Your task to perform on an android device: change your default location settings in chrome Image 0: 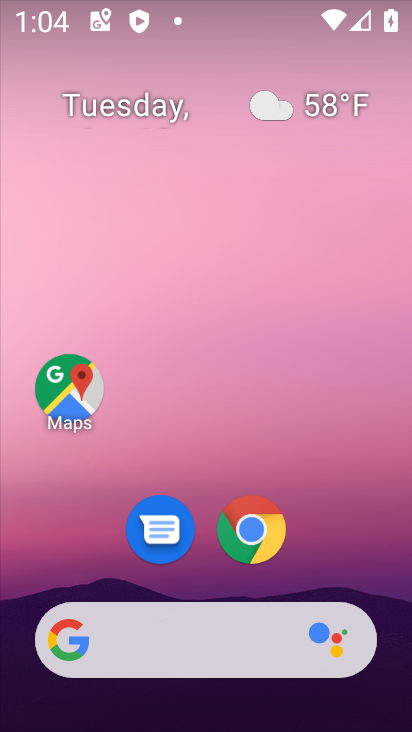
Step 0: drag from (264, 332) to (256, 15)
Your task to perform on an android device: change your default location settings in chrome Image 1: 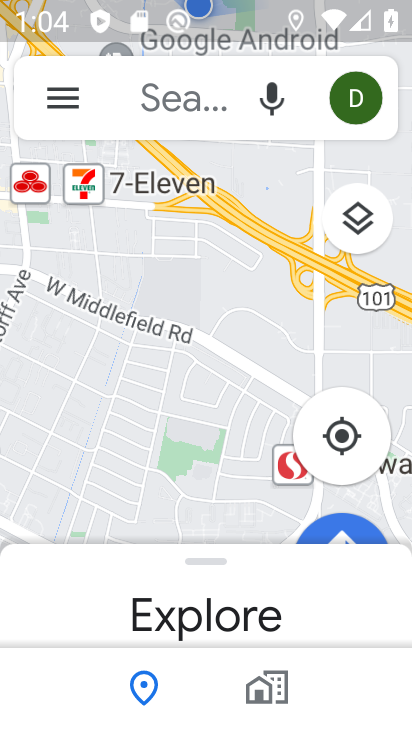
Step 1: press home button
Your task to perform on an android device: change your default location settings in chrome Image 2: 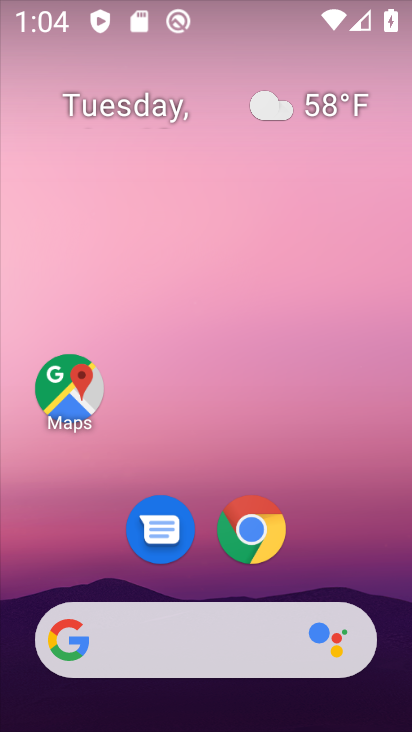
Step 2: drag from (269, 590) to (269, 41)
Your task to perform on an android device: change your default location settings in chrome Image 3: 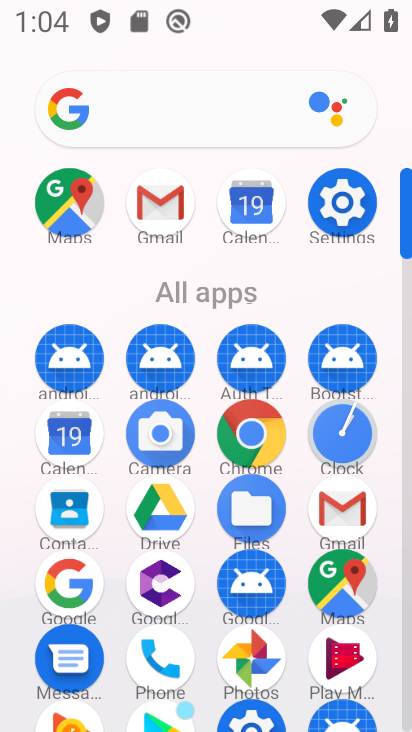
Step 3: click (244, 453)
Your task to perform on an android device: change your default location settings in chrome Image 4: 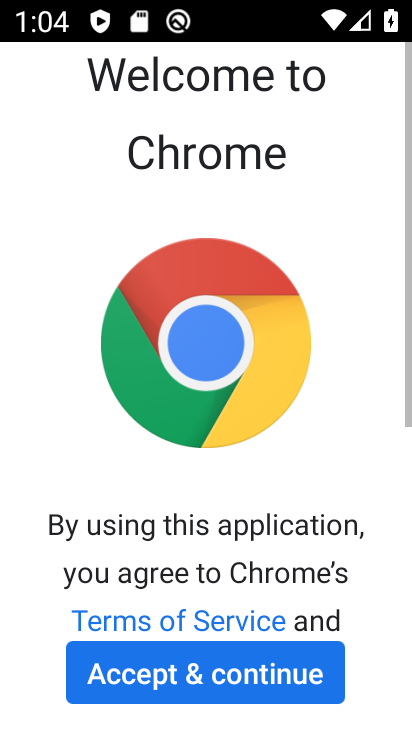
Step 4: click (268, 441)
Your task to perform on an android device: change your default location settings in chrome Image 5: 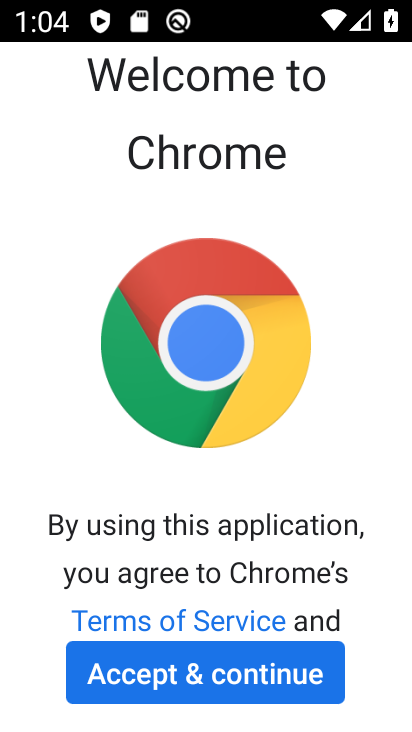
Step 5: click (205, 678)
Your task to perform on an android device: change your default location settings in chrome Image 6: 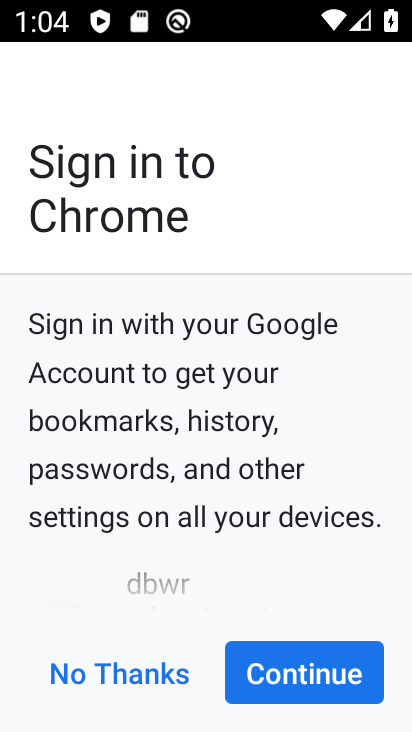
Step 6: click (246, 690)
Your task to perform on an android device: change your default location settings in chrome Image 7: 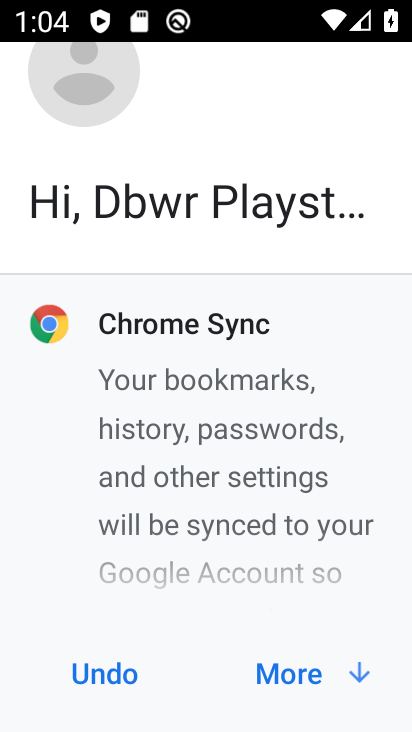
Step 7: click (264, 688)
Your task to perform on an android device: change your default location settings in chrome Image 8: 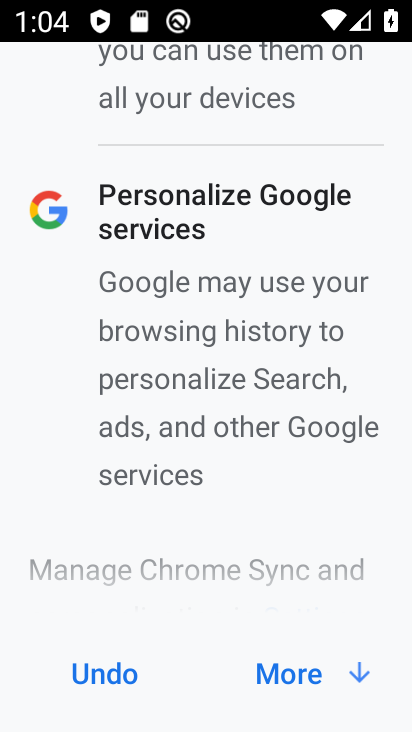
Step 8: click (284, 685)
Your task to perform on an android device: change your default location settings in chrome Image 9: 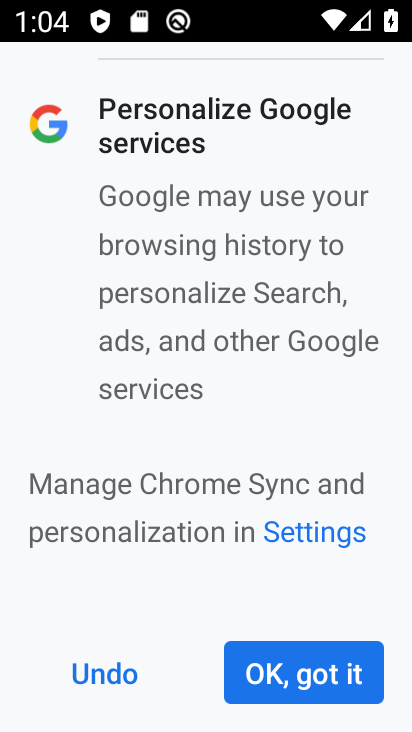
Step 9: click (284, 685)
Your task to perform on an android device: change your default location settings in chrome Image 10: 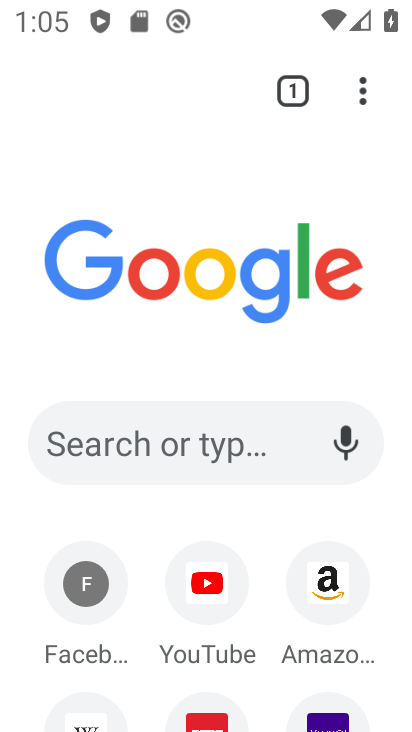
Step 10: click (367, 87)
Your task to perform on an android device: change your default location settings in chrome Image 11: 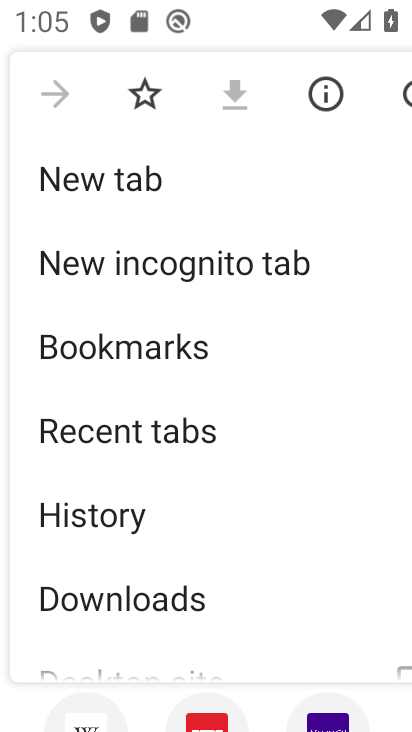
Step 11: drag from (173, 573) to (193, 178)
Your task to perform on an android device: change your default location settings in chrome Image 12: 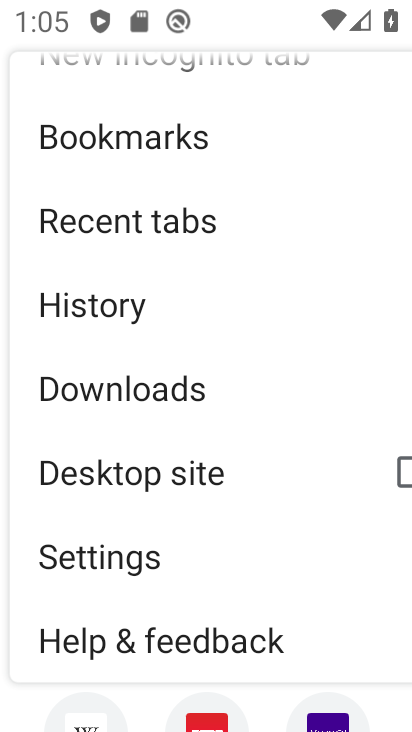
Step 12: click (198, 561)
Your task to perform on an android device: change your default location settings in chrome Image 13: 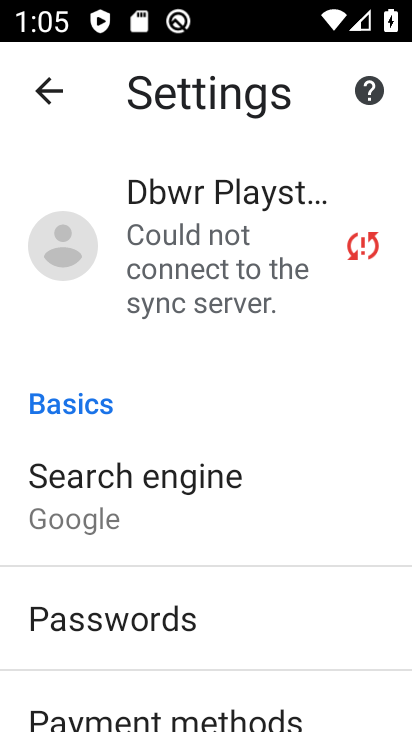
Step 13: drag from (187, 627) to (109, 198)
Your task to perform on an android device: change your default location settings in chrome Image 14: 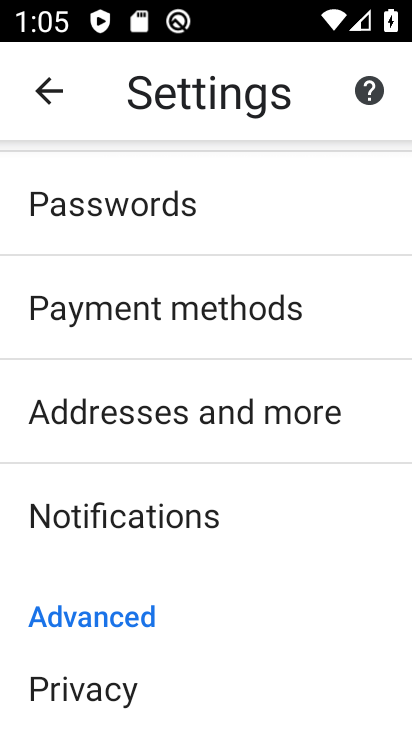
Step 14: drag from (186, 622) to (162, 140)
Your task to perform on an android device: change your default location settings in chrome Image 15: 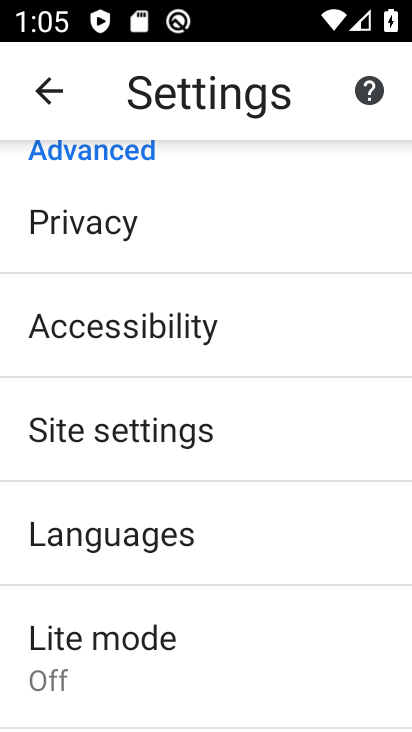
Step 15: click (168, 429)
Your task to perform on an android device: change your default location settings in chrome Image 16: 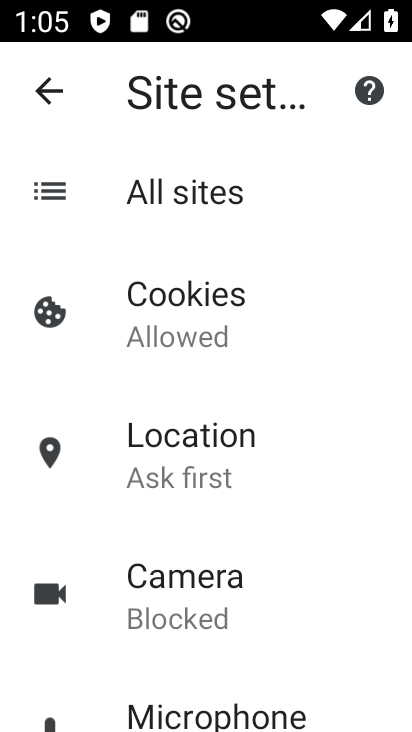
Step 16: drag from (209, 524) to (264, 244)
Your task to perform on an android device: change your default location settings in chrome Image 17: 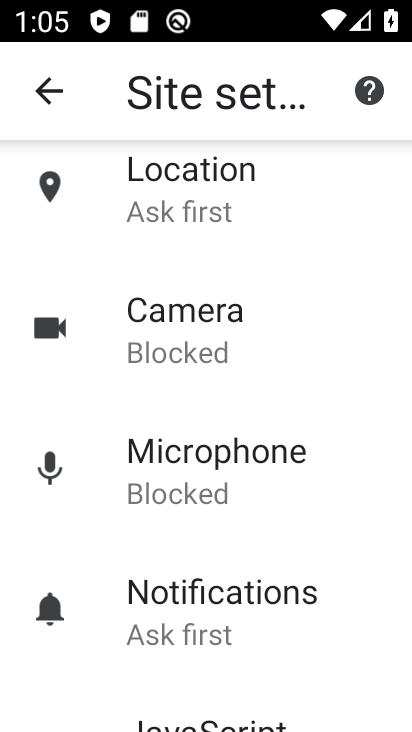
Step 17: click (217, 223)
Your task to perform on an android device: change your default location settings in chrome Image 18: 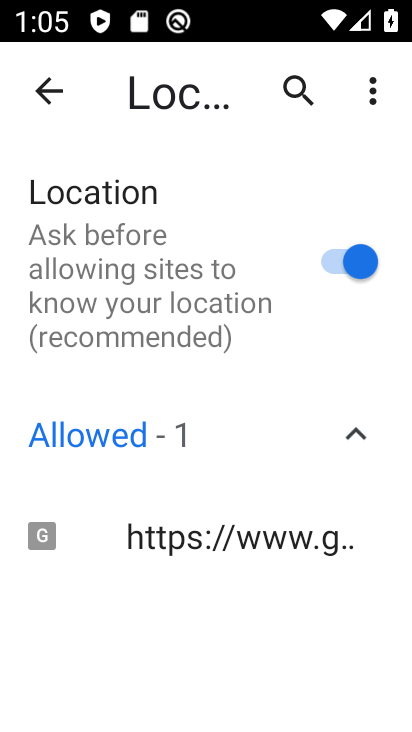
Step 18: click (328, 271)
Your task to perform on an android device: change your default location settings in chrome Image 19: 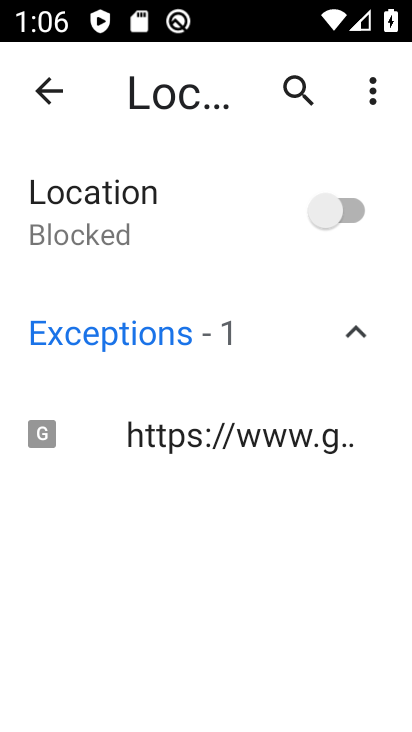
Step 19: task complete